Your task to perform on an android device: Go to Maps Image 0: 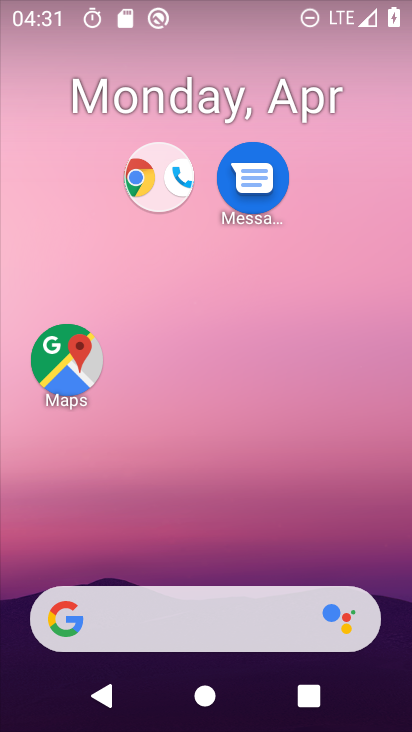
Step 0: drag from (272, 318) to (393, 654)
Your task to perform on an android device: Go to Maps Image 1: 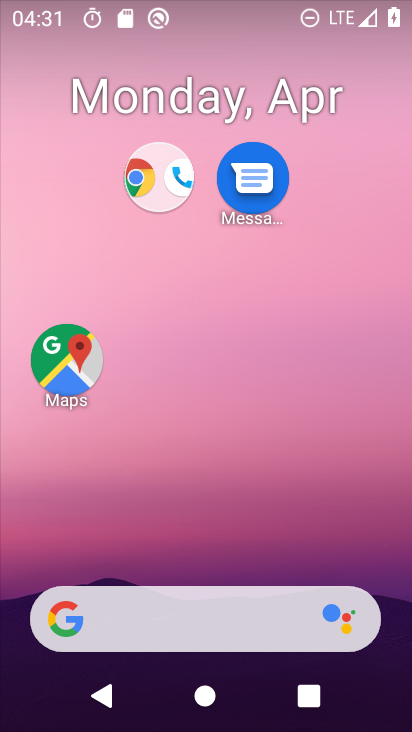
Step 1: drag from (288, 576) to (357, 8)
Your task to perform on an android device: Go to Maps Image 2: 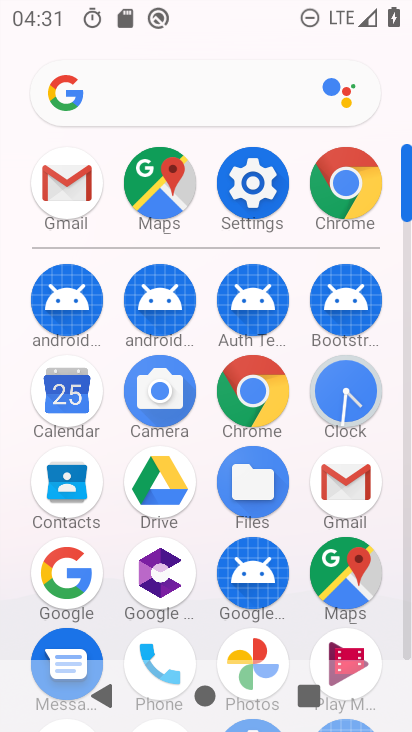
Step 2: click (328, 579)
Your task to perform on an android device: Go to Maps Image 3: 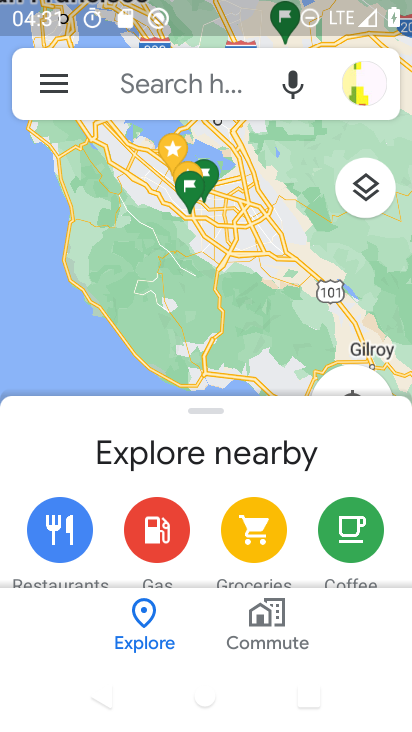
Step 3: task complete